Your task to perform on an android device: refresh tabs in the chrome app Image 0: 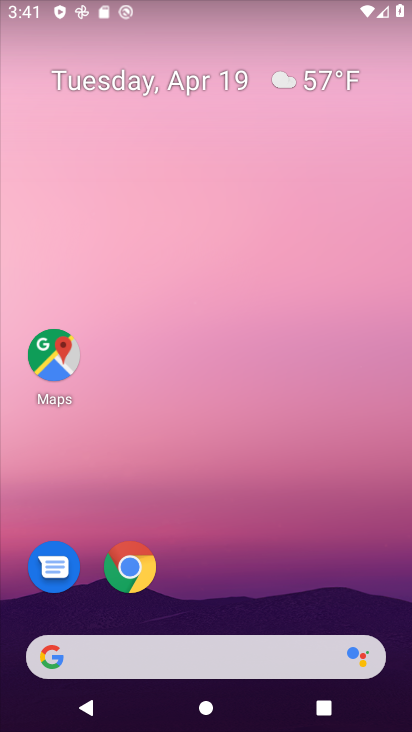
Step 0: drag from (318, 548) to (315, 164)
Your task to perform on an android device: refresh tabs in the chrome app Image 1: 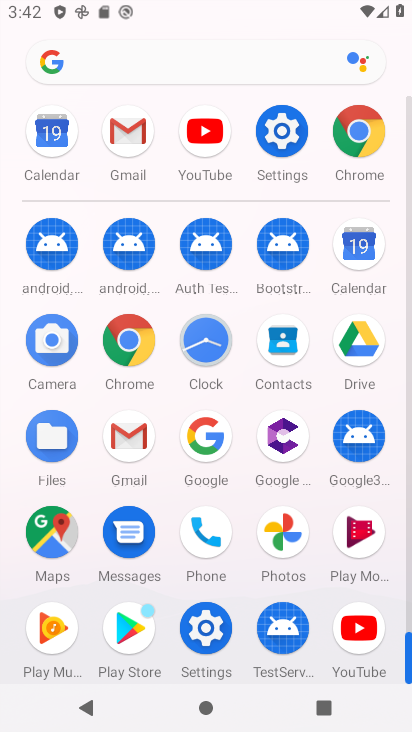
Step 1: click (142, 348)
Your task to perform on an android device: refresh tabs in the chrome app Image 2: 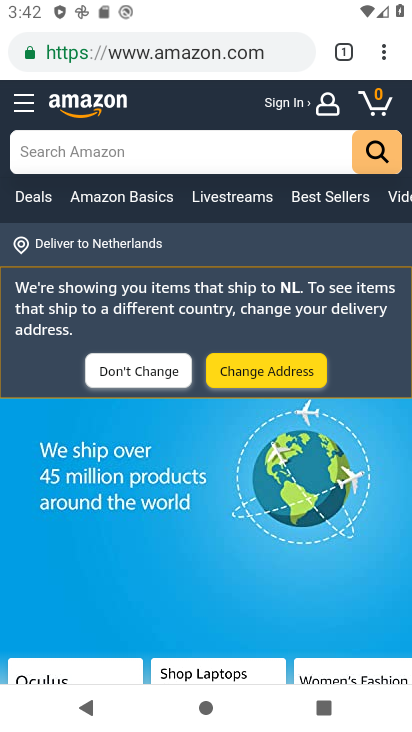
Step 2: click (385, 54)
Your task to perform on an android device: refresh tabs in the chrome app Image 3: 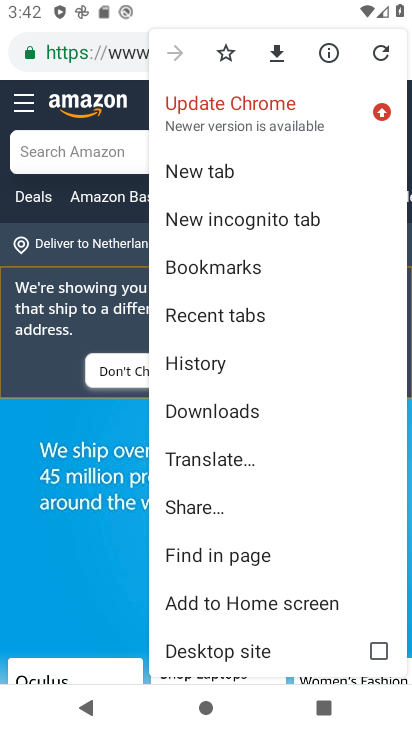
Step 3: click (385, 54)
Your task to perform on an android device: refresh tabs in the chrome app Image 4: 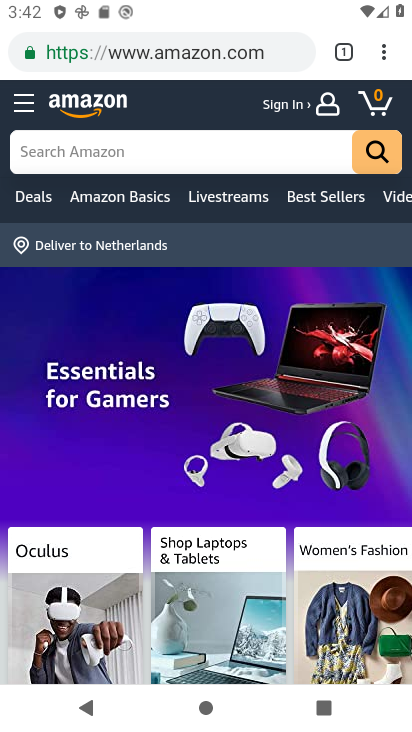
Step 4: task complete